Your task to perform on an android device: turn off wifi Image 0: 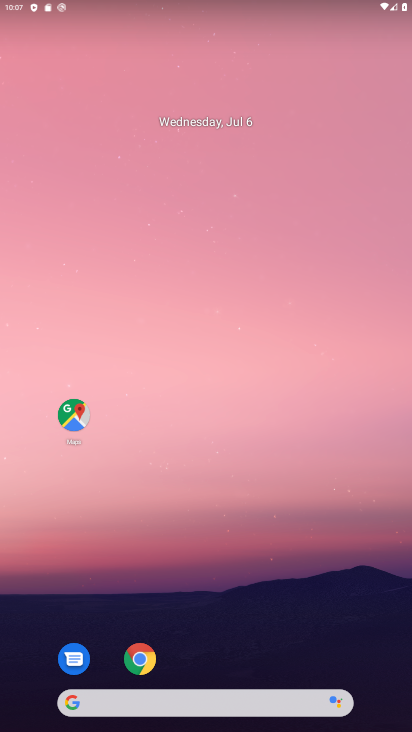
Step 0: drag from (165, 11) to (194, 606)
Your task to perform on an android device: turn off wifi Image 1: 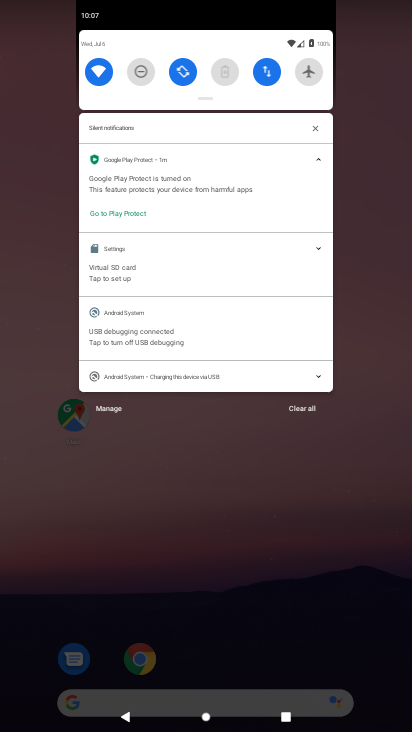
Step 1: click (95, 68)
Your task to perform on an android device: turn off wifi Image 2: 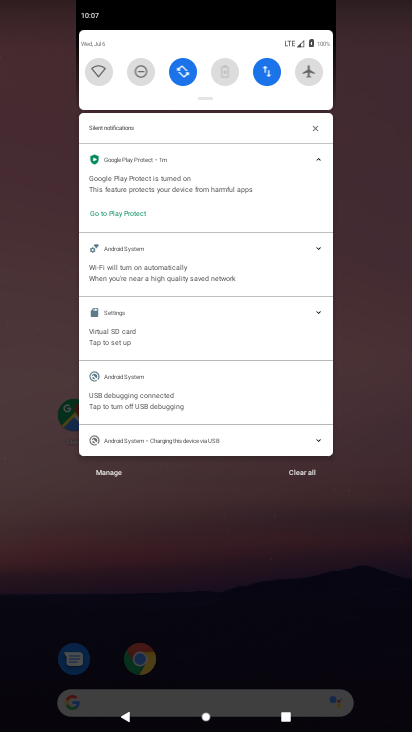
Step 2: task complete